Your task to perform on an android device: Open Wikipedia Image 0: 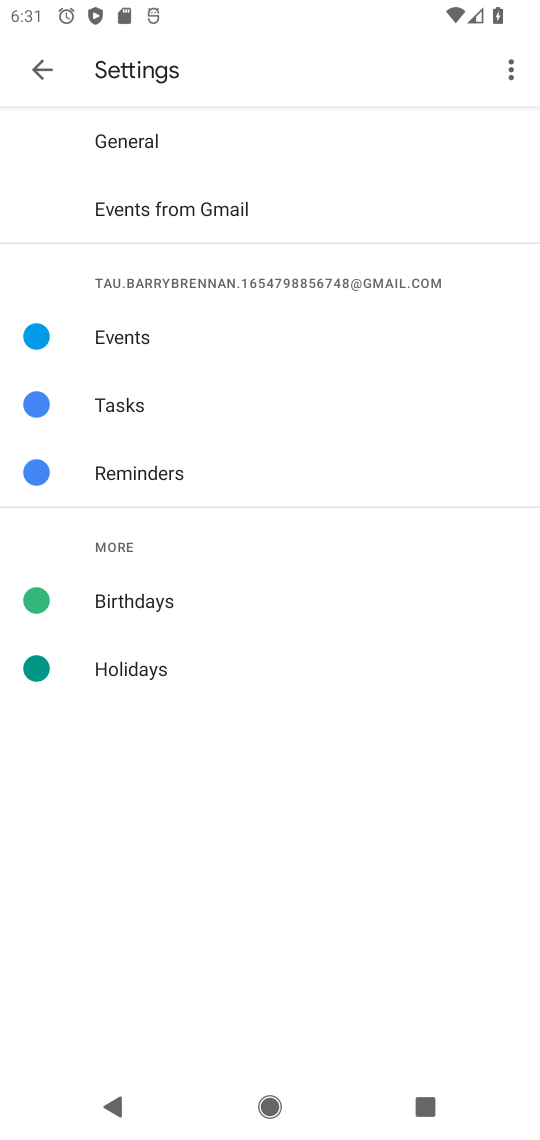
Step 0: press home button
Your task to perform on an android device: Open Wikipedia Image 1: 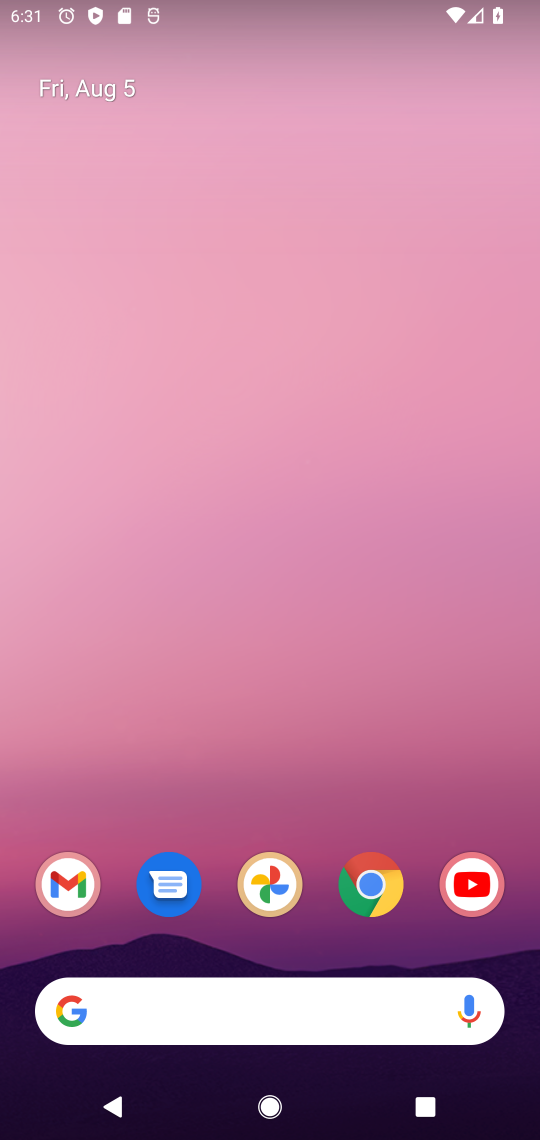
Step 1: drag from (321, 837) to (358, 15)
Your task to perform on an android device: Open Wikipedia Image 2: 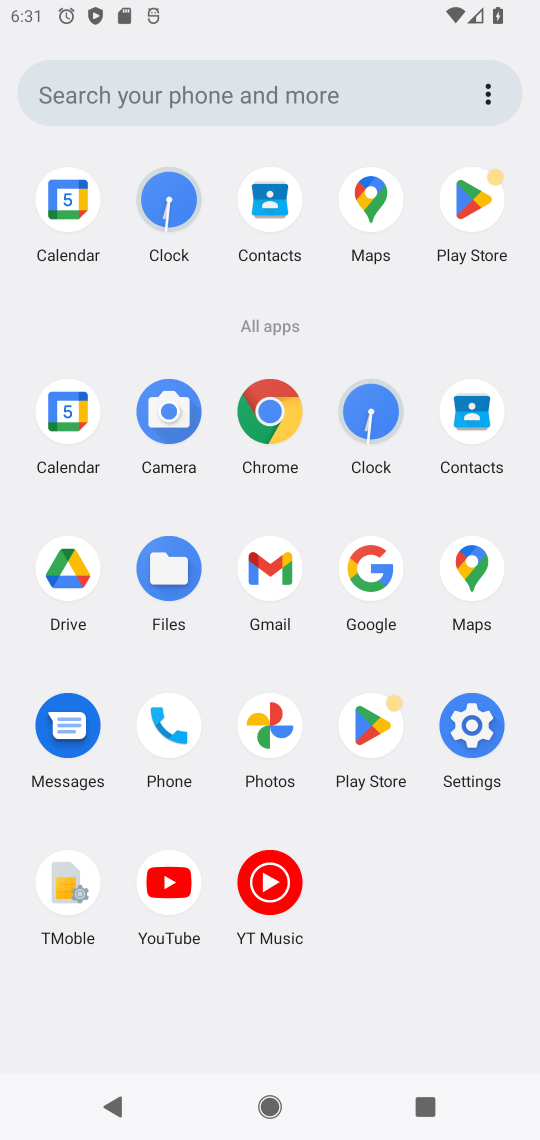
Step 2: click (270, 402)
Your task to perform on an android device: Open Wikipedia Image 3: 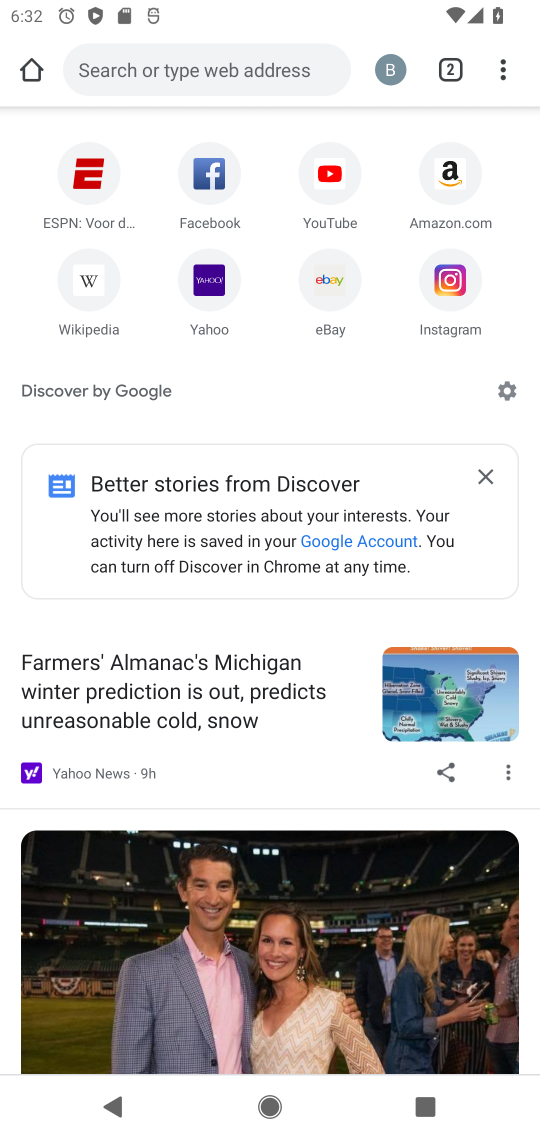
Step 3: click (81, 280)
Your task to perform on an android device: Open Wikipedia Image 4: 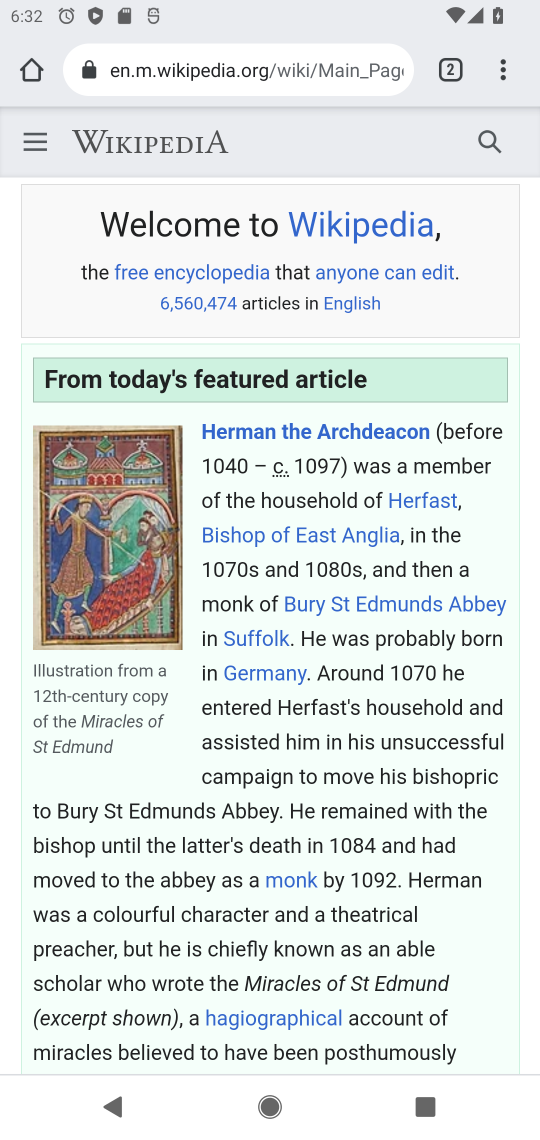
Step 4: task complete